Your task to perform on an android device: Go to eBay Image 0: 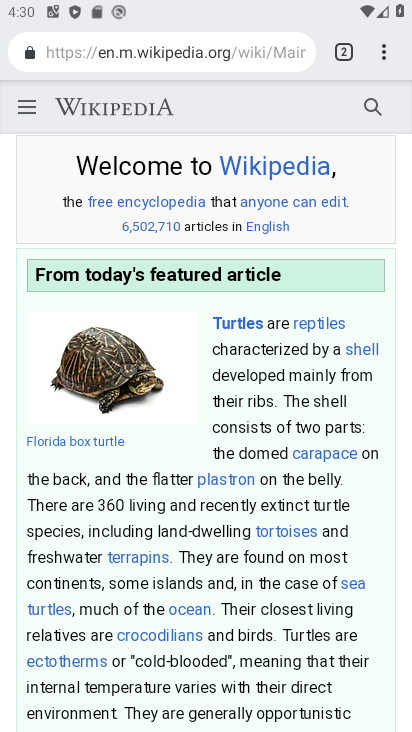
Step 0: press home button
Your task to perform on an android device: Go to eBay Image 1: 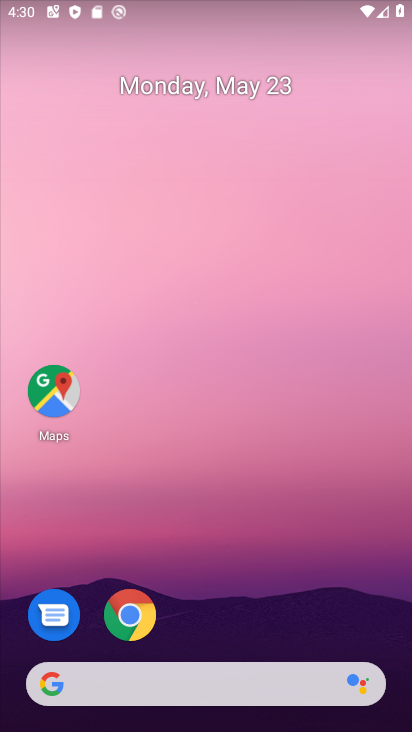
Step 1: click (278, 694)
Your task to perform on an android device: Go to eBay Image 2: 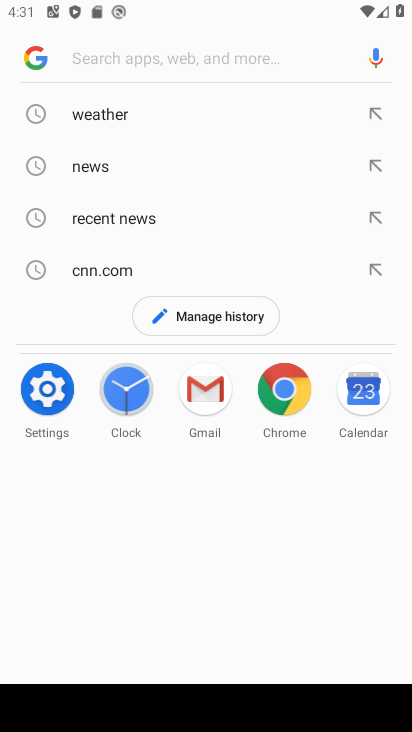
Step 2: type "ebay"
Your task to perform on an android device: Go to eBay Image 3: 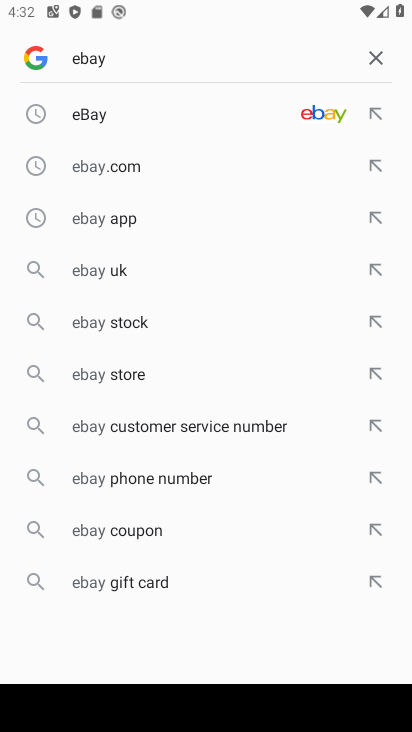
Step 3: click (81, 122)
Your task to perform on an android device: Go to eBay Image 4: 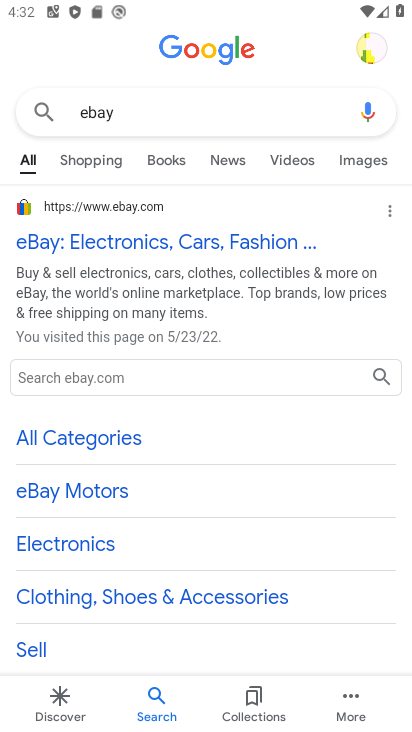
Step 4: click (41, 234)
Your task to perform on an android device: Go to eBay Image 5: 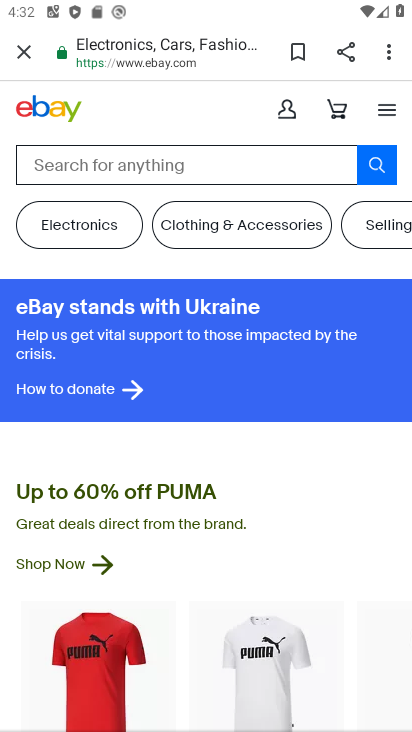
Step 5: task complete